Your task to perform on an android device: View the shopping cart on amazon.com. Image 0: 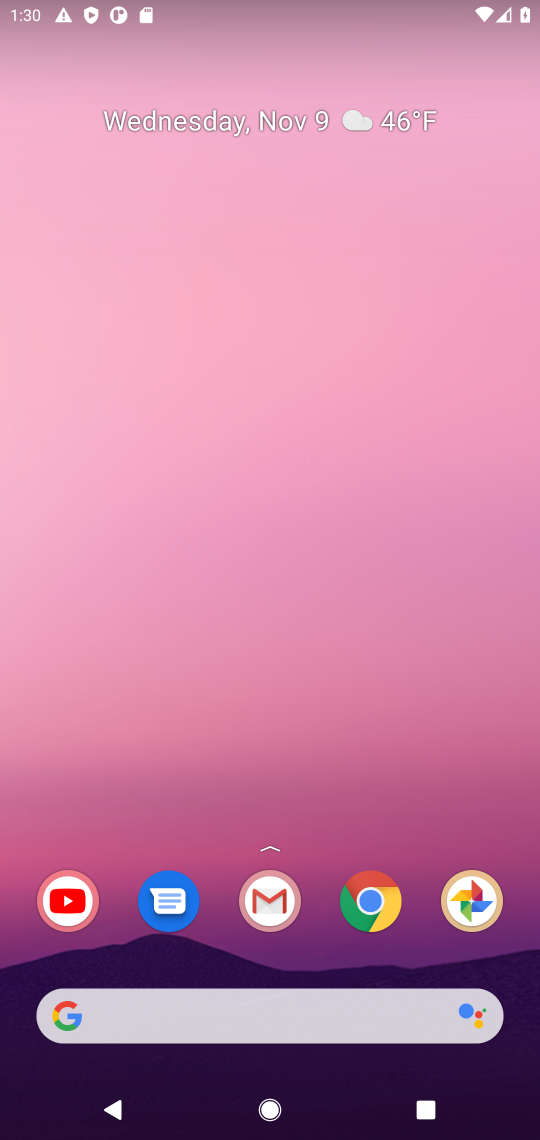
Step 0: click (372, 899)
Your task to perform on an android device: View the shopping cart on amazon.com. Image 1: 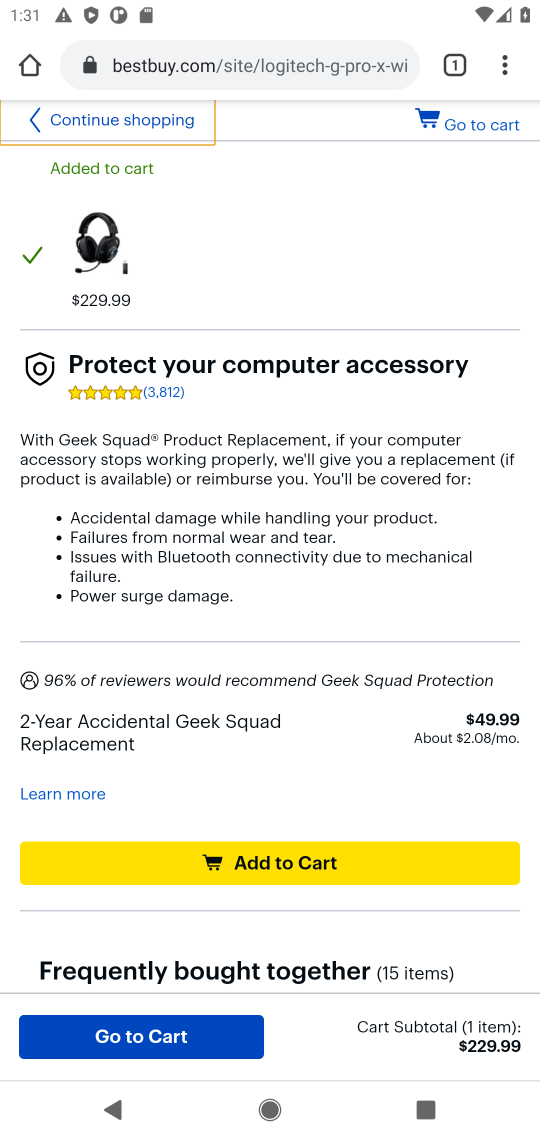
Step 1: click (231, 55)
Your task to perform on an android device: View the shopping cart on amazon.com. Image 2: 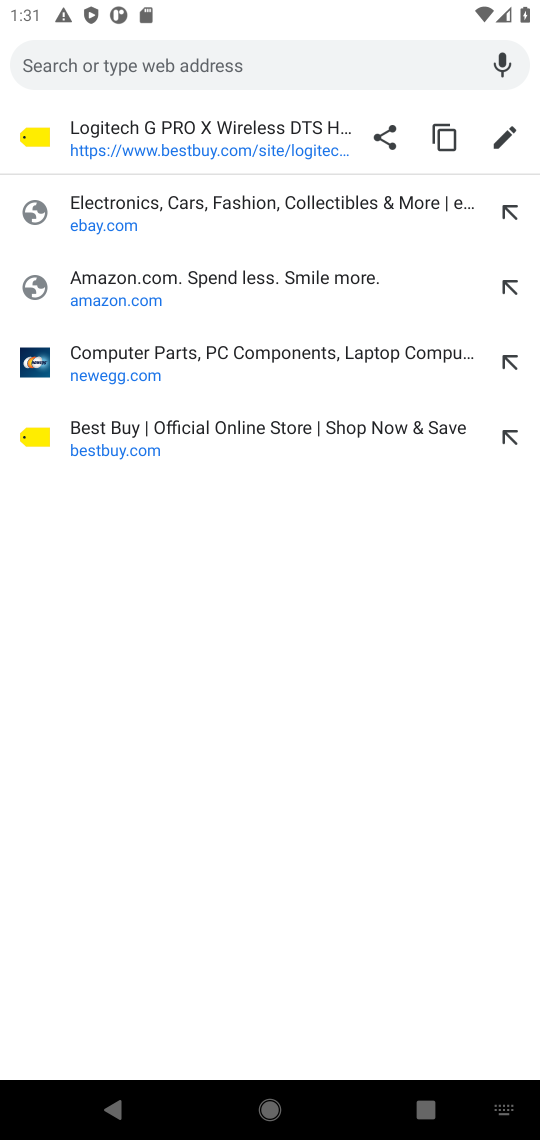
Step 2: click (201, 281)
Your task to perform on an android device: View the shopping cart on amazon.com. Image 3: 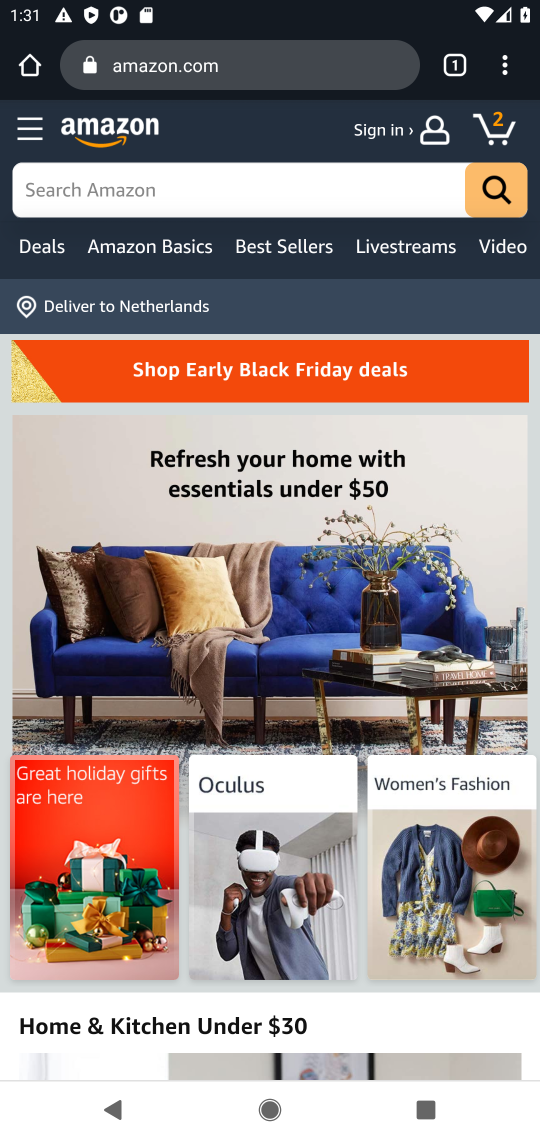
Step 3: click (498, 138)
Your task to perform on an android device: View the shopping cart on amazon.com. Image 4: 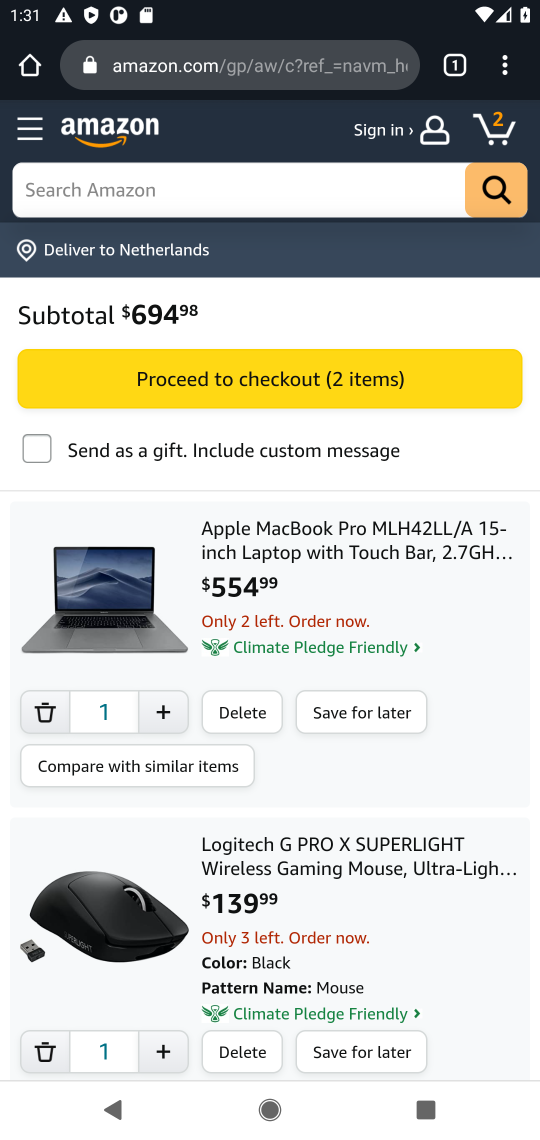
Step 4: task complete